Your task to perform on an android device: turn on data saver in the chrome app Image 0: 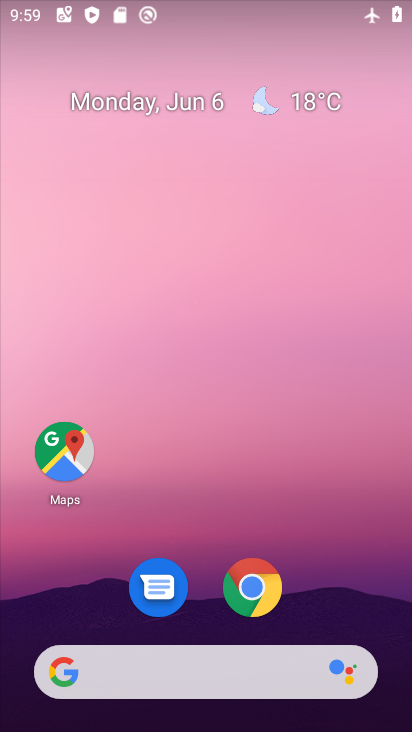
Step 0: click (251, 586)
Your task to perform on an android device: turn on data saver in the chrome app Image 1: 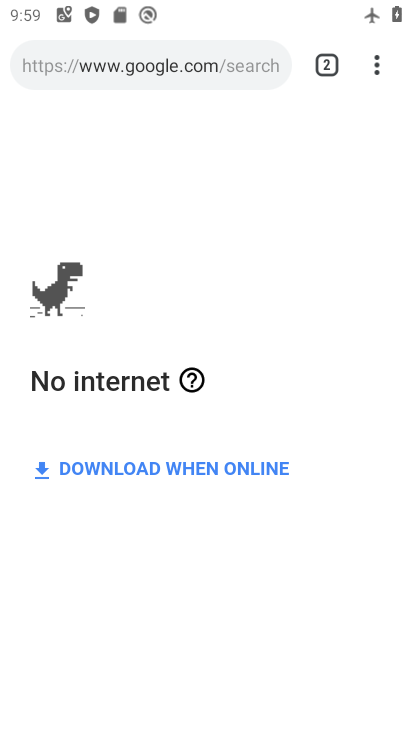
Step 1: drag from (381, 66) to (163, 631)
Your task to perform on an android device: turn on data saver in the chrome app Image 2: 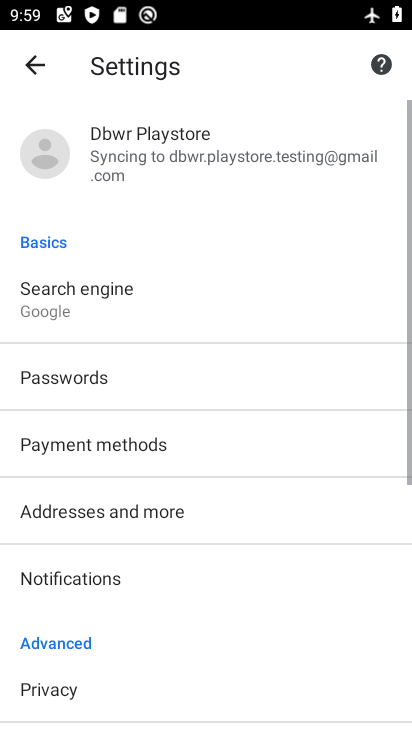
Step 2: drag from (218, 640) to (245, 192)
Your task to perform on an android device: turn on data saver in the chrome app Image 3: 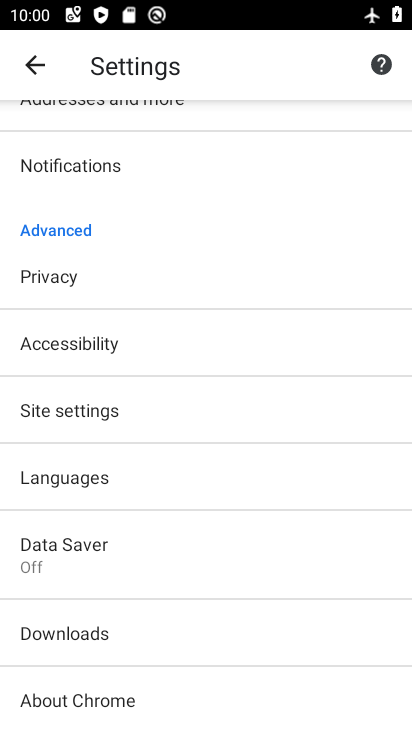
Step 3: click (129, 561)
Your task to perform on an android device: turn on data saver in the chrome app Image 4: 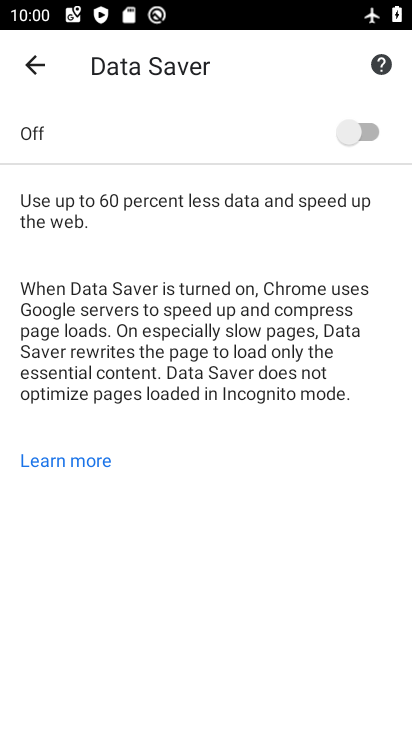
Step 4: click (336, 131)
Your task to perform on an android device: turn on data saver in the chrome app Image 5: 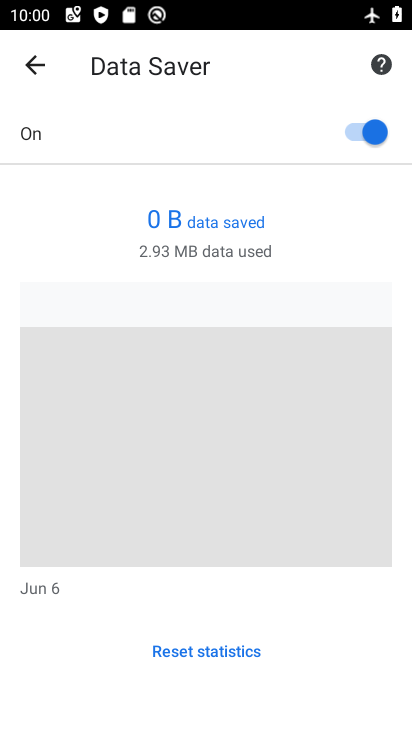
Step 5: task complete